Your task to perform on an android device: Show me productivity apps on the Play Store Image 0: 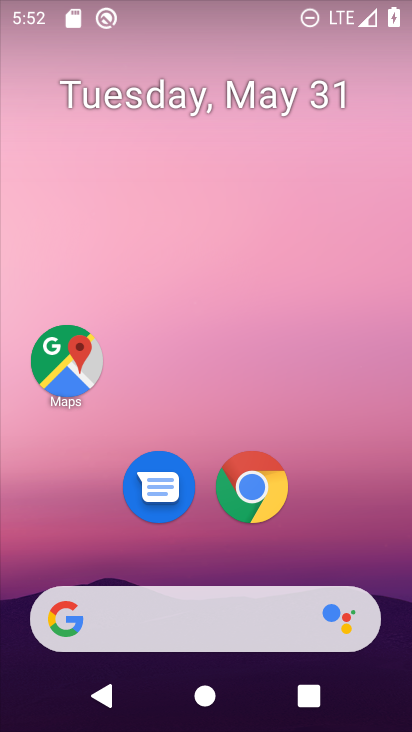
Step 0: drag from (327, 536) to (275, 114)
Your task to perform on an android device: Show me productivity apps on the Play Store Image 1: 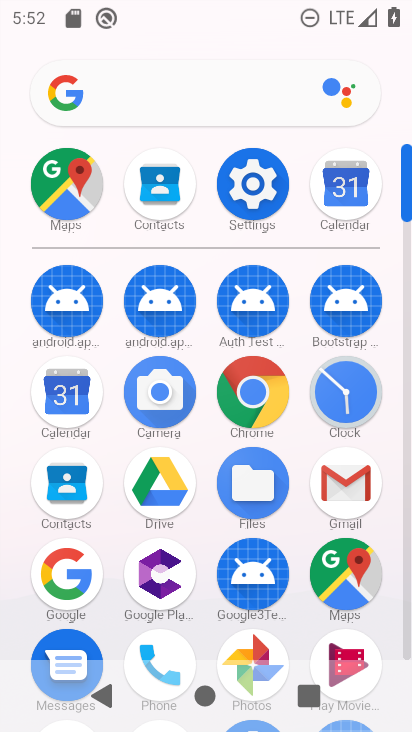
Step 1: drag from (204, 609) to (202, 266)
Your task to perform on an android device: Show me productivity apps on the Play Store Image 2: 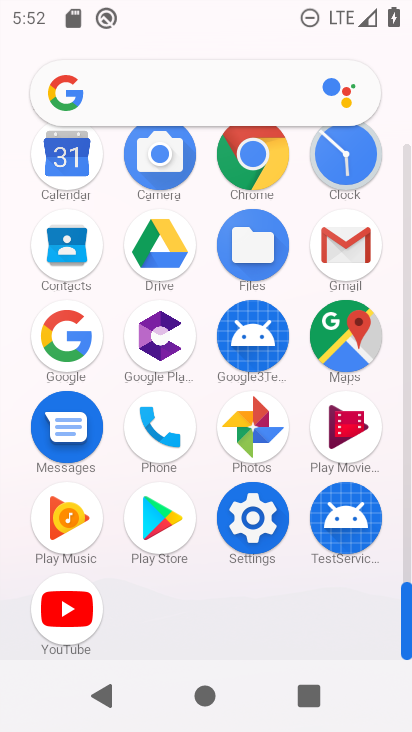
Step 2: click (141, 523)
Your task to perform on an android device: Show me productivity apps on the Play Store Image 3: 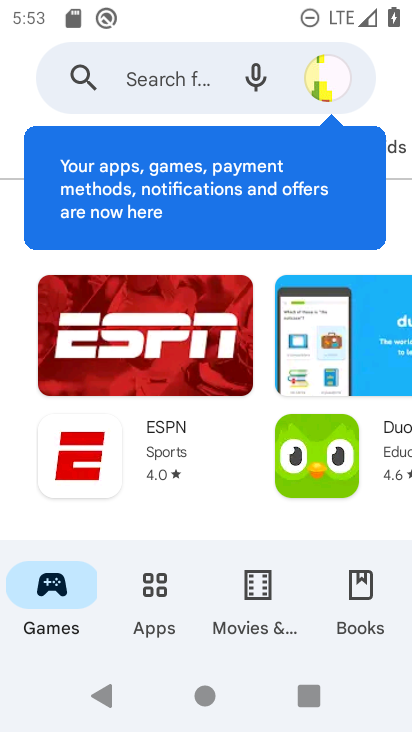
Step 3: click (159, 579)
Your task to perform on an android device: Show me productivity apps on the Play Store Image 4: 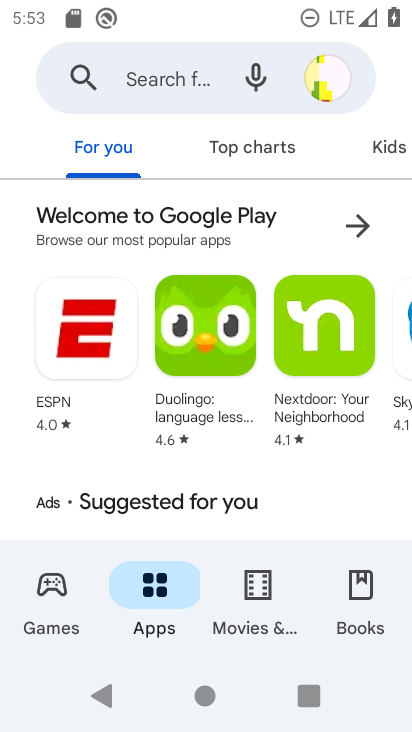
Step 4: task complete